Your task to perform on an android device: turn on translation in the chrome app Image 0: 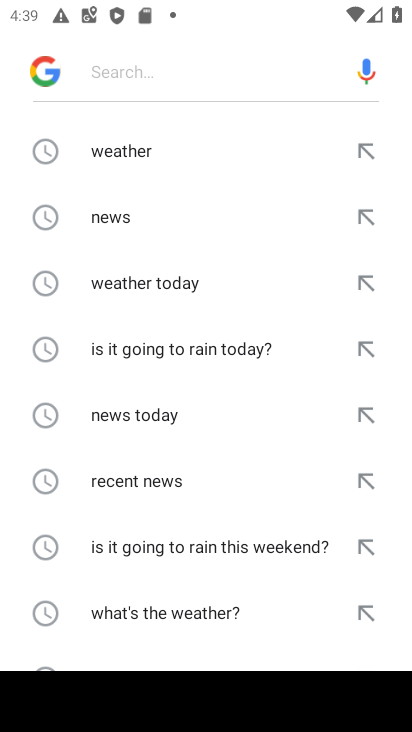
Step 0: press back button
Your task to perform on an android device: turn on translation in the chrome app Image 1: 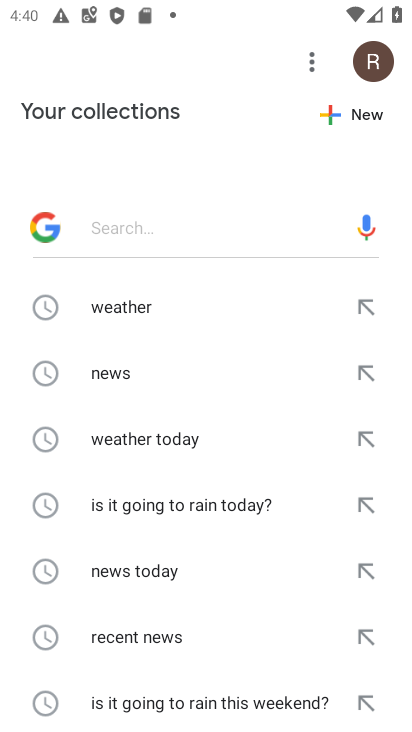
Step 1: press back button
Your task to perform on an android device: turn on translation in the chrome app Image 2: 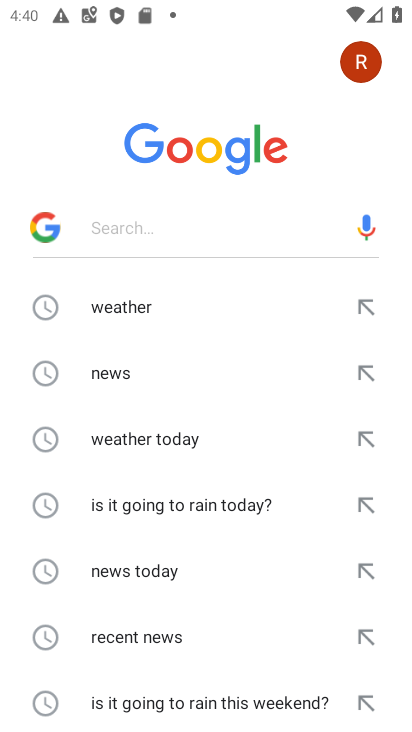
Step 2: press back button
Your task to perform on an android device: turn on translation in the chrome app Image 3: 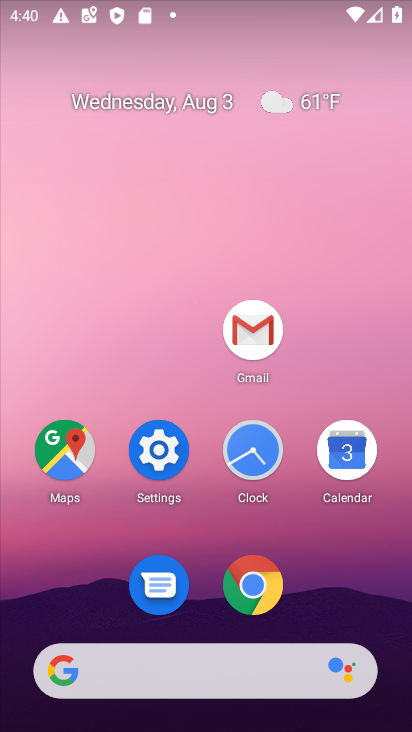
Step 3: click (239, 574)
Your task to perform on an android device: turn on translation in the chrome app Image 4: 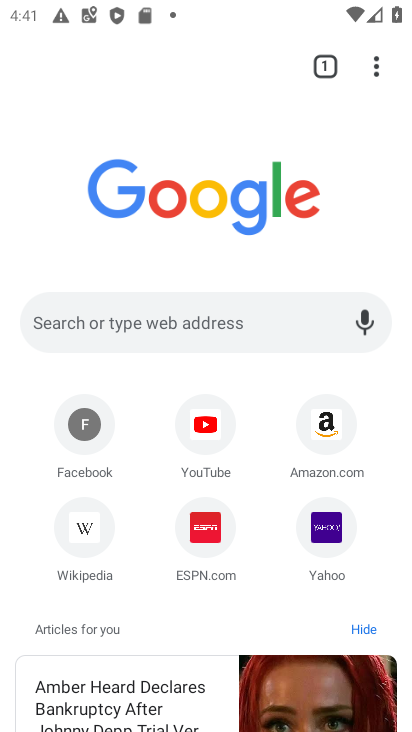
Step 4: click (374, 54)
Your task to perform on an android device: turn on translation in the chrome app Image 5: 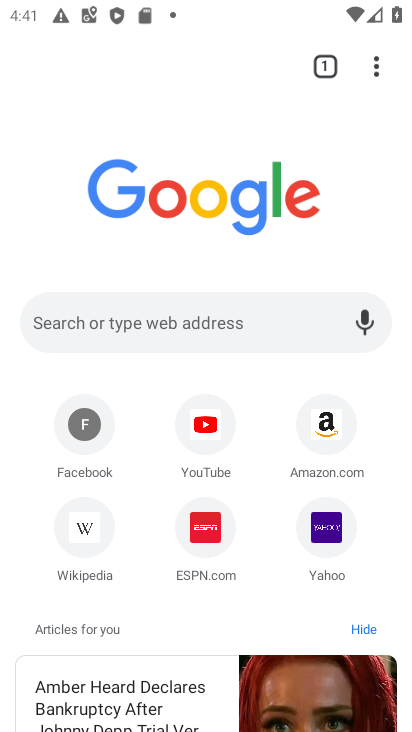
Step 5: click (378, 70)
Your task to perform on an android device: turn on translation in the chrome app Image 6: 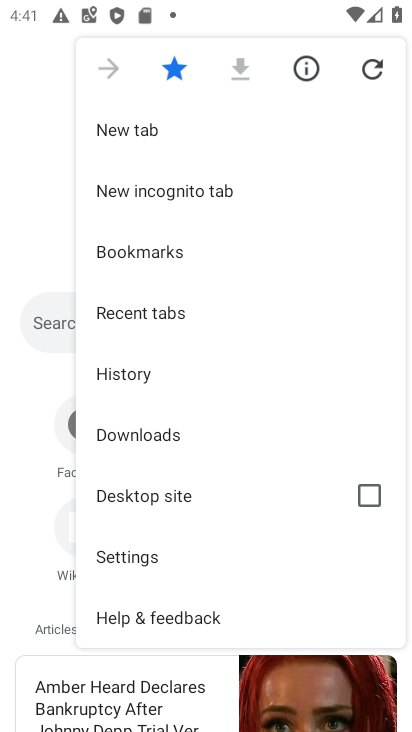
Step 6: click (133, 558)
Your task to perform on an android device: turn on translation in the chrome app Image 7: 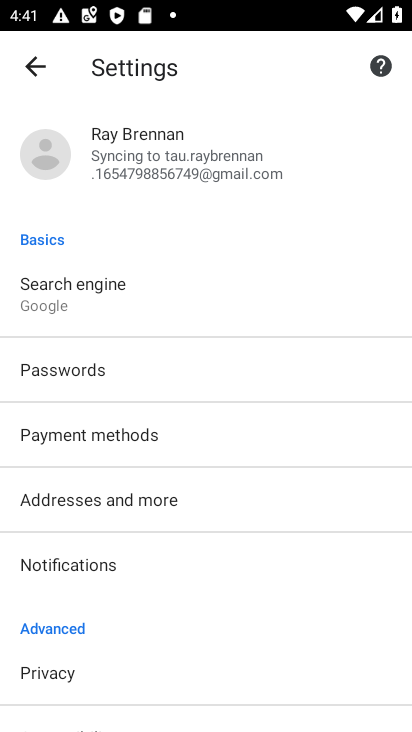
Step 7: drag from (310, 678) to (275, 345)
Your task to perform on an android device: turn on translation in the chrome app Image 8: 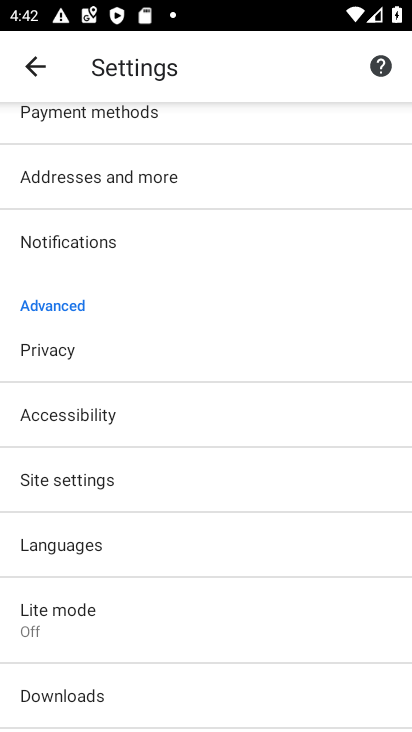
Step 8: click (98, 551)
Your task to perform on an android device: turn on translation in the chrome app Image 9: 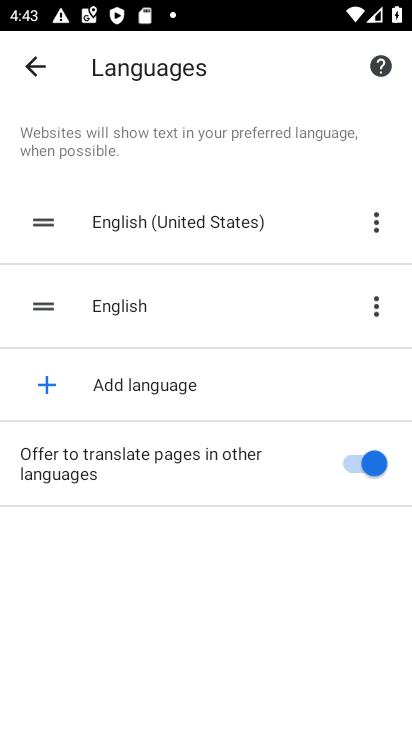
Step 9: task complete